Your task to perform on an android device: snooze an email in the gmail app Image 0: 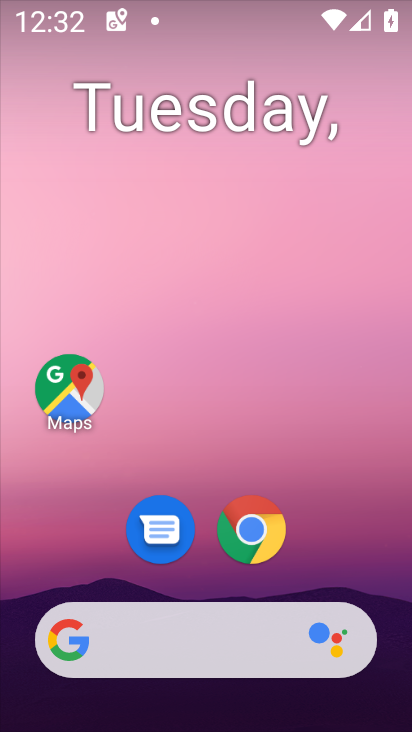
Step 0: drag from (196, 597) to (260, 115)
Your task to perform on an android device: snooze an email in the gmail app Image 1: 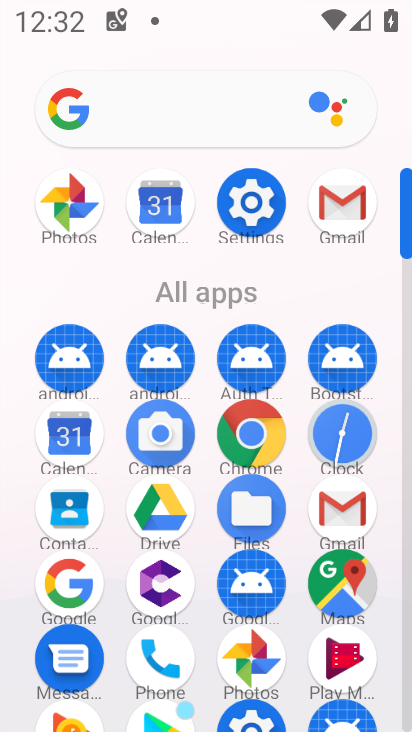
Step 1: click (334, 498)
Your task to perform on an android device: snooze an email in the gmail app Image 2: 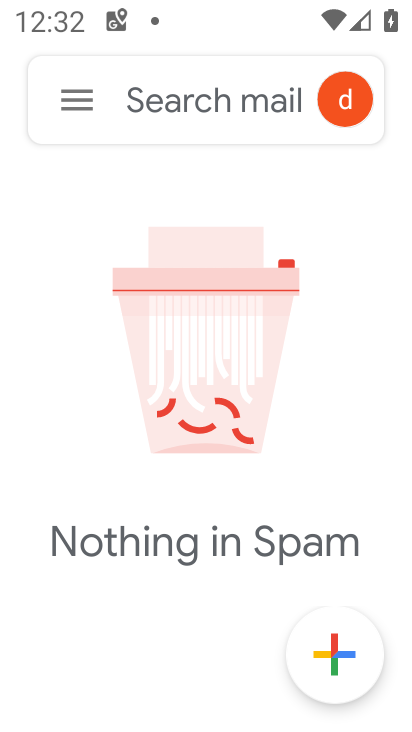
Step 2: click (90, 79)
Your task to perform on an android device: snooze an email in the gmail app Image 3: 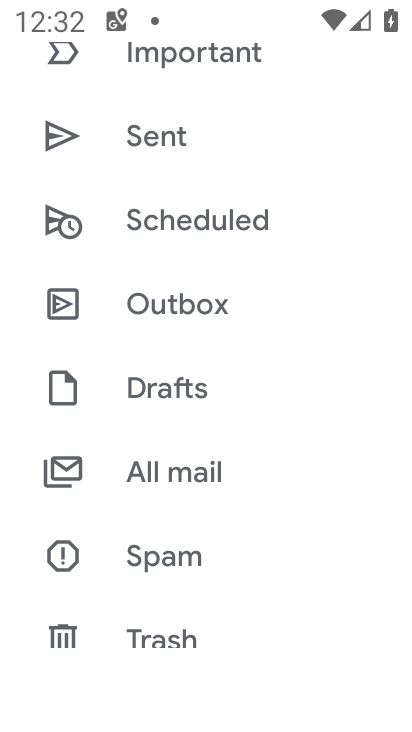
Step 3: click (168, 460)
Your task to perform on an android device: snooze an email in the gmail app Image 4: 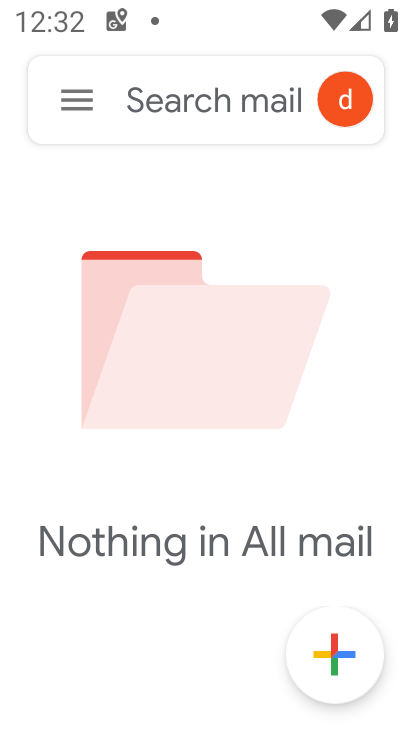
Step 4: task complete